Your task to perform on an android device: Open Amazon Image 0: 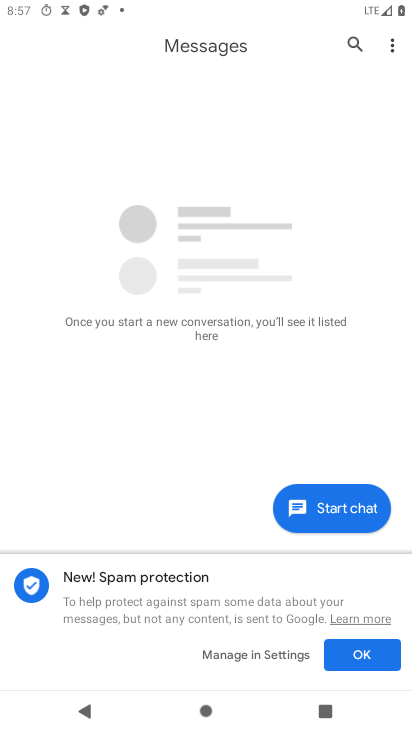
Step 0: press back button
Your task to perform on an android device: Open Amazon Image 1: 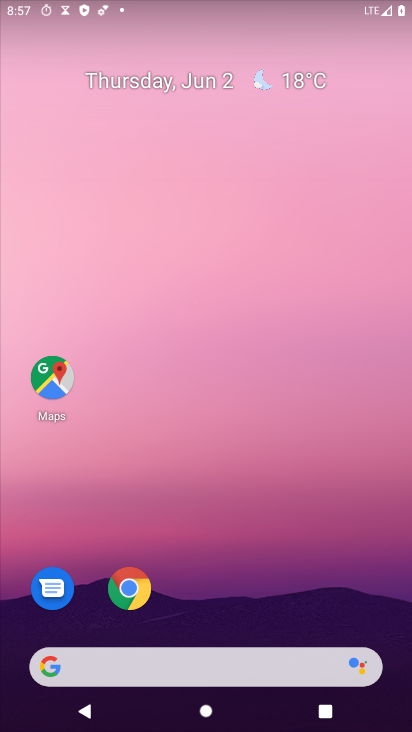
Step 1: click (127, 591)
Your task to perform on an android device: Open Amazon Image 2: 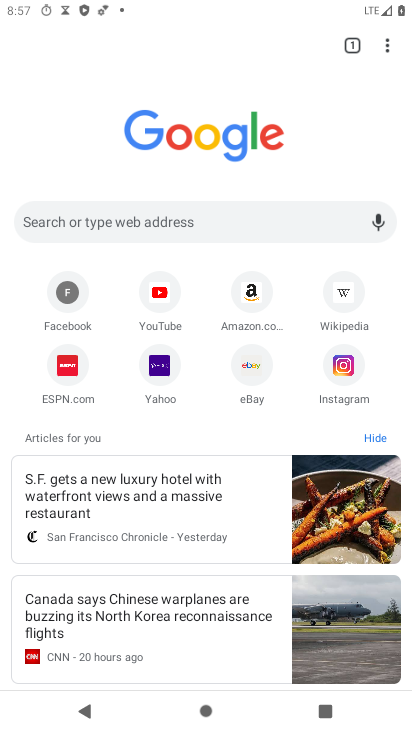
Step 2: click (251, 294)
Your task to perform on an android device: Open Amazon Image 3: 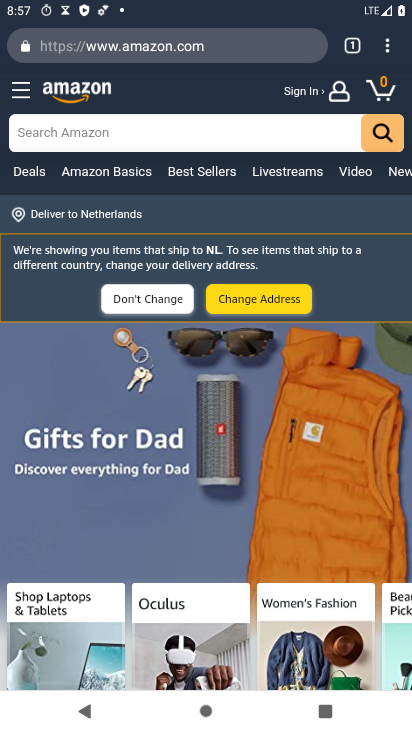
Step 3: task complete